Your task to perform on an android device: turn notification dots on Image 0: 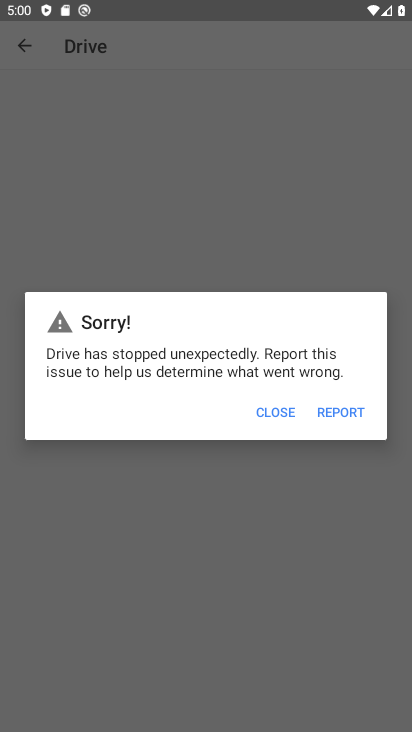
Step 0: press home button
Your task to perform on an android device: turn notification dots on Image 1: 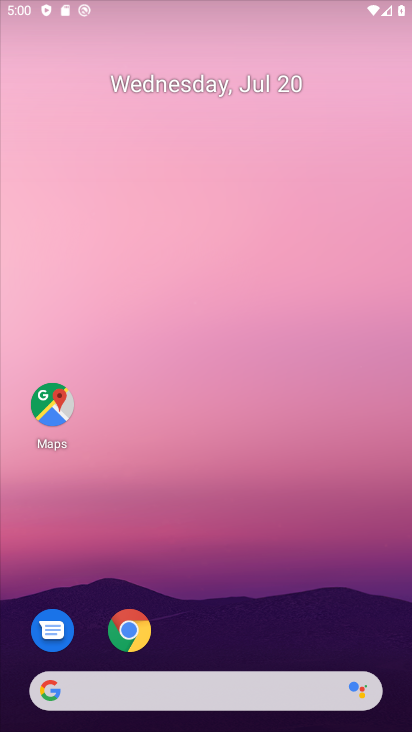
Step 1: drag from (325, 654) to (405, 8)
Your task to perform on an android device: turn notification dots on Image 2: 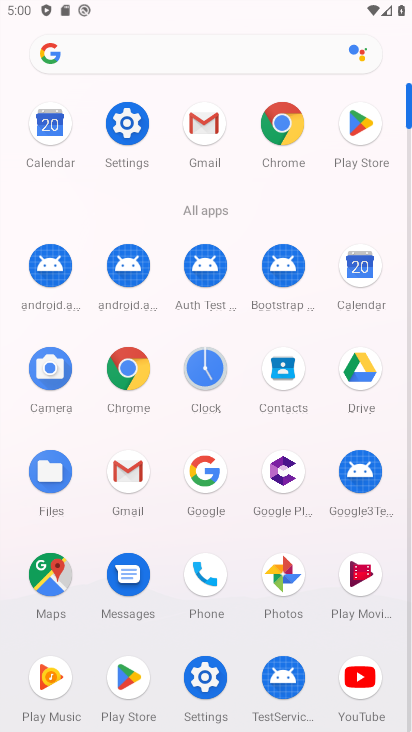
Step 2: click (122, 119)
Your task to perform on an android device: turn notification dots on Image 3: 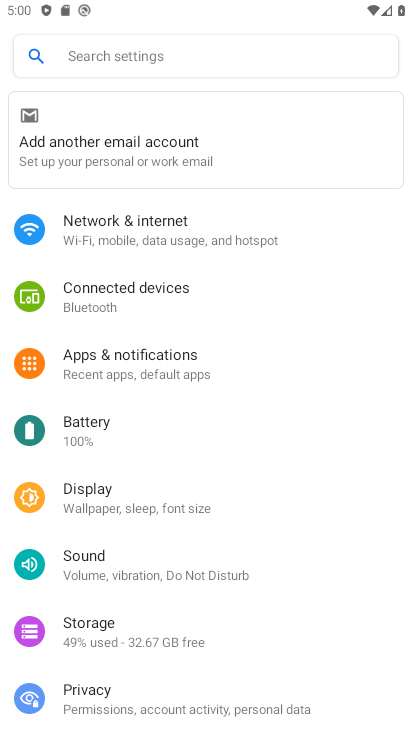
Step 3: click (135, 354)
Your task to perform on an android device: turn notification dots on Image 4: 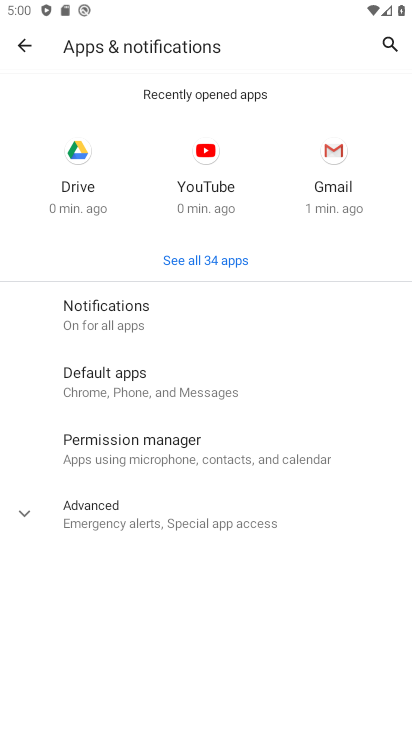
Step 4: click (133, 322)
Your task to perform on an android device: turn notification dots on Image 5: 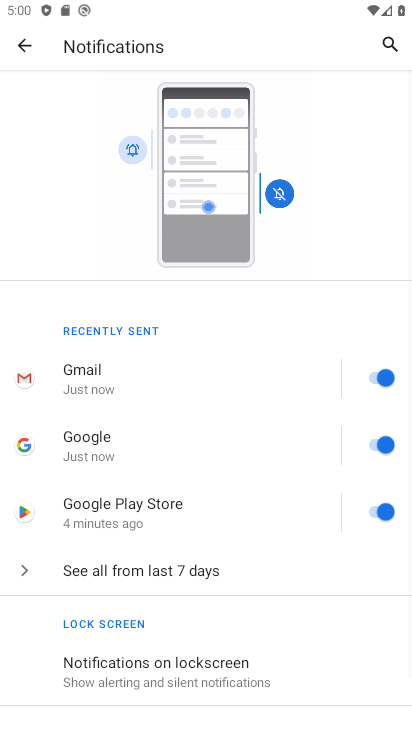
Step 5: drag from (232, 683) to (272, 350)
Your task to perform on an android device: turn notification dots on Image 6: 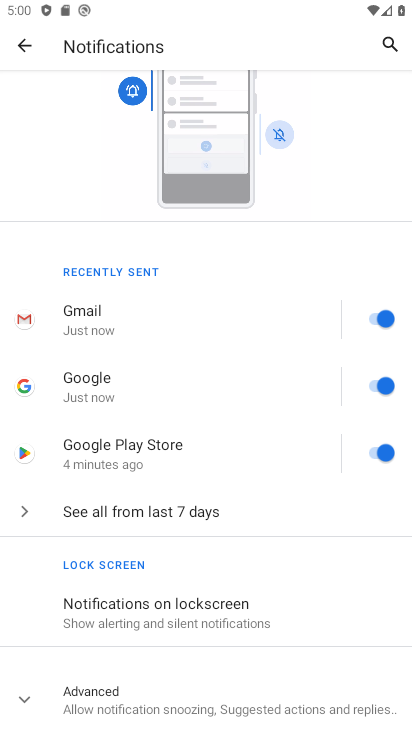
Step 6: click (203, 699)
Your task to perform on an android device: turn notification dots on Image 7: 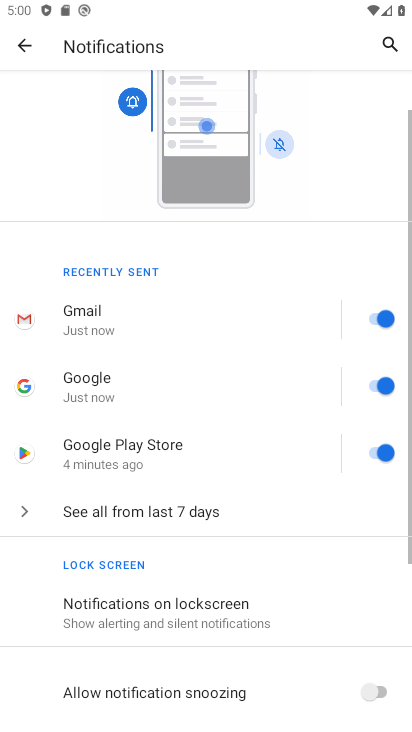
Step 7: drag from (203, 699) to (244, 280)
Your task to perform on an android device: turn notification dots on Image 8: 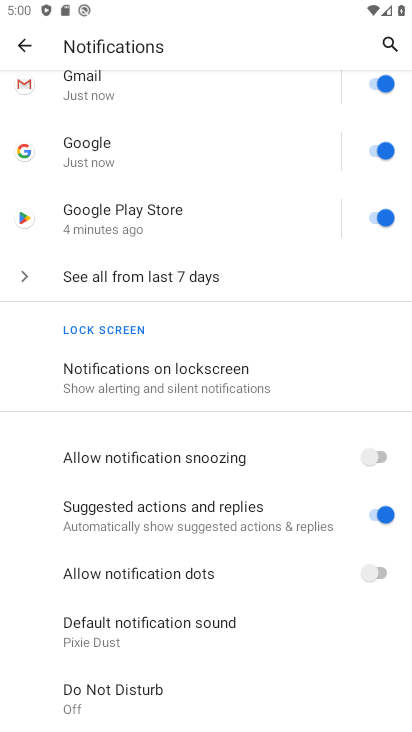
Step 8: click (384, 569)
Your task to perform on an android device: turn notification dots on Image 9: 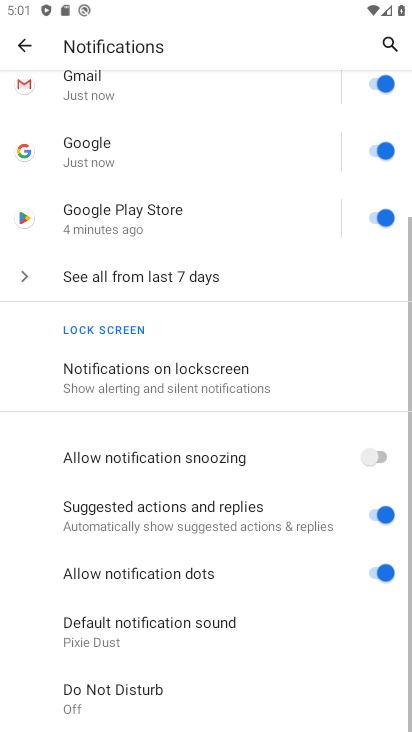
Step 9: task complete